Your task to perform on an android device: What's the weather today? Image 0: 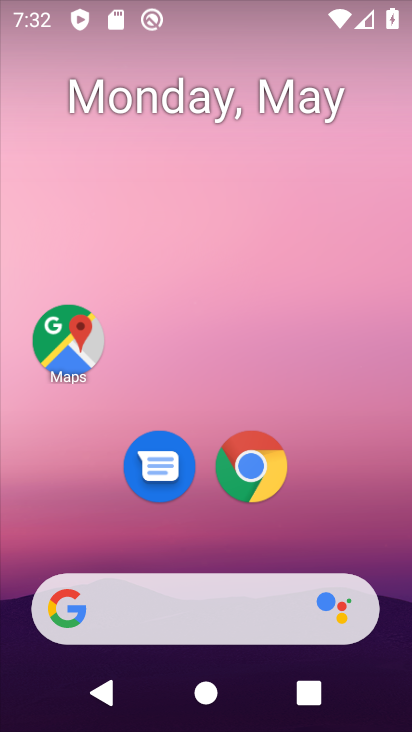
Step 0: drag from (226, 693) to (250, 134)
Your task to perform on an android device: What's the weather today? Image 1: 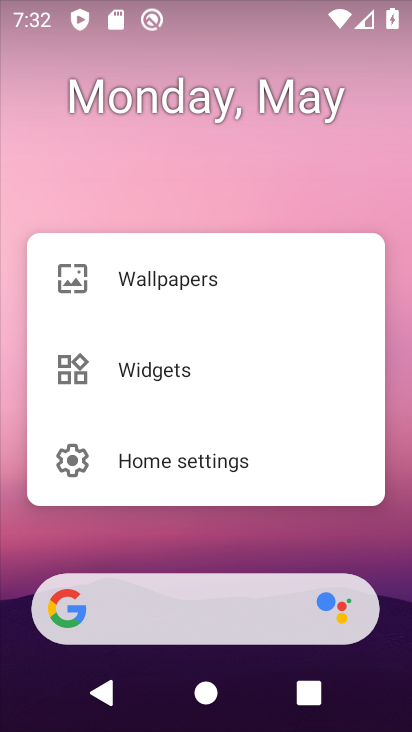
Step 1: drag from (270, 589) to (274, 138)
Your task to perform on an android device: What's the weather today? Image 2: 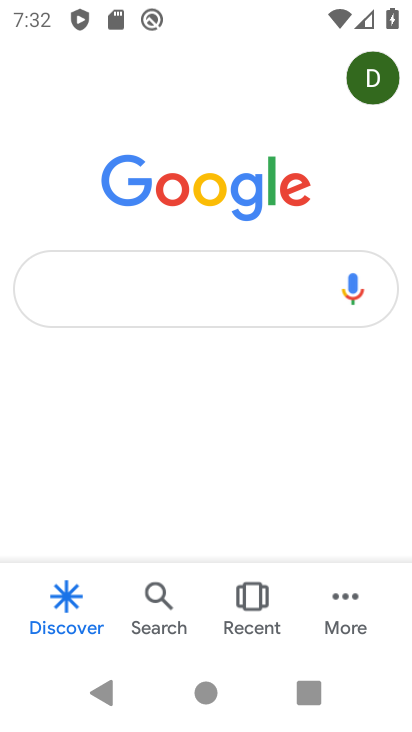
Step 2: click (263, 310)
Your task to perform on an android device: What's the weather today? Image 3: 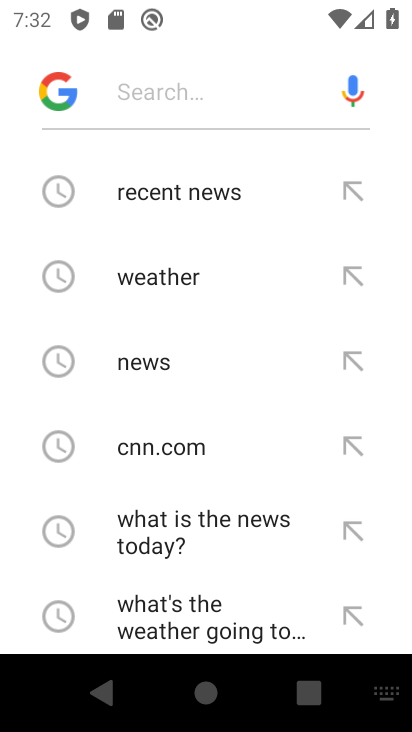
Step 3: click (143, 270)
Your task to perform on an android device: What's the weather today? Image 4: 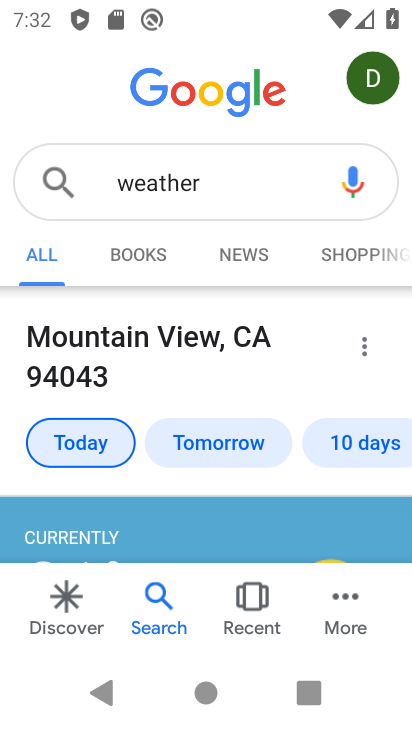
Step 4: task complete